Your task to perform on an android device: Show me productivity apps on the Play Store Image 0: 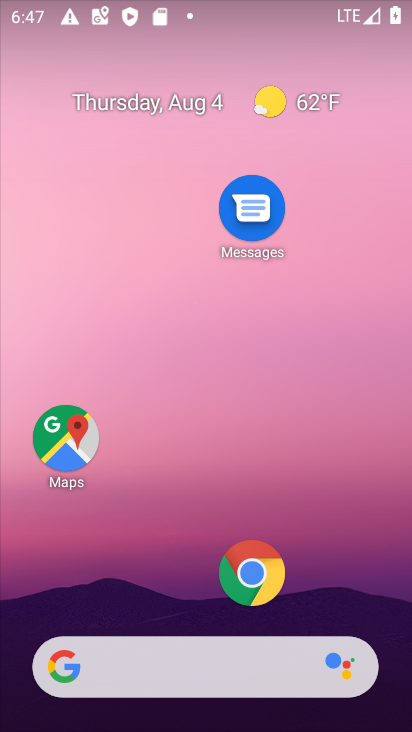
Step 0: press home button
Your task to perform on an android device: Show me productivity apps on the Play Store Image 1: 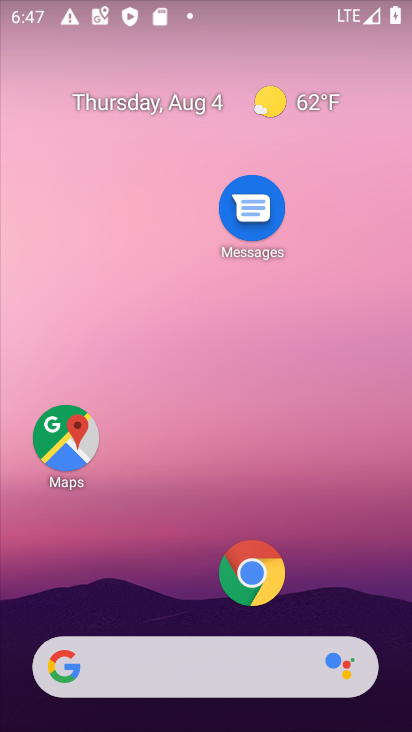
Step 1: drag from (181, 631) to (217, 163)
Your task to perform on an android device: Show me productivity apps on the Play Store Image 2: 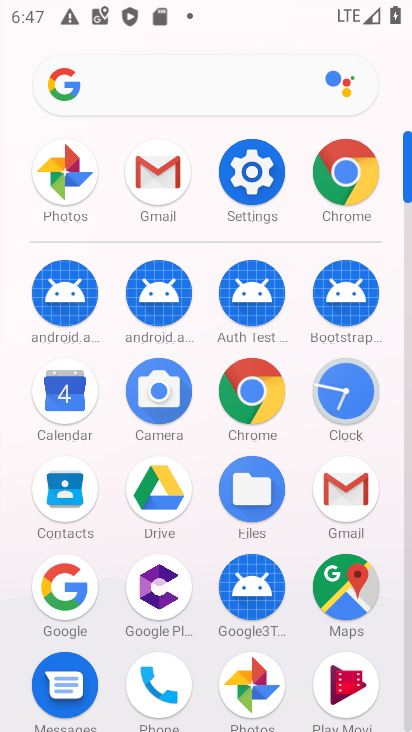
Step 2: drag from (297, 660) to (300, 197)
Your task to perform on an android device: Show me productivity apps on the Play Store Image 3: 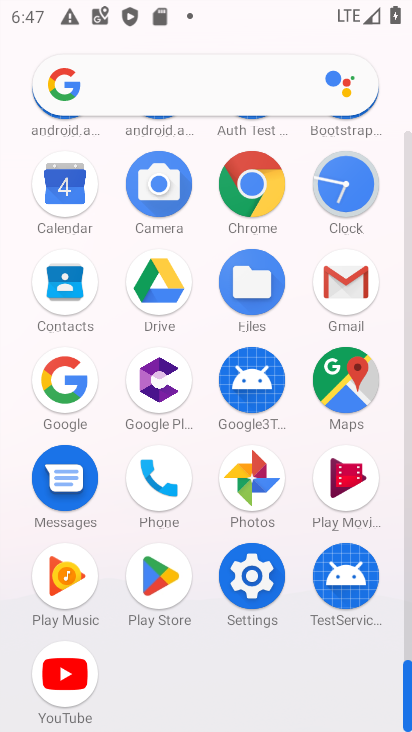
Step 3: click (151, 556)
Your task to perform on an android device: Show me productivity apps on the Play Store Image 4: 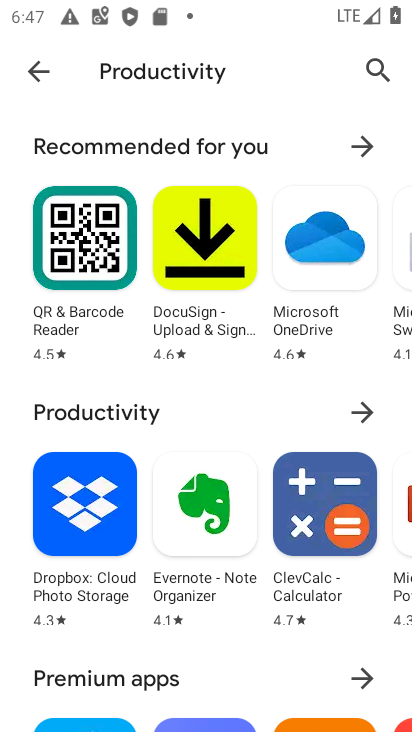
Step 4: click (31, 75)
Your task to perform on an android device: Show me productivity apps on the Play Store Image 5: 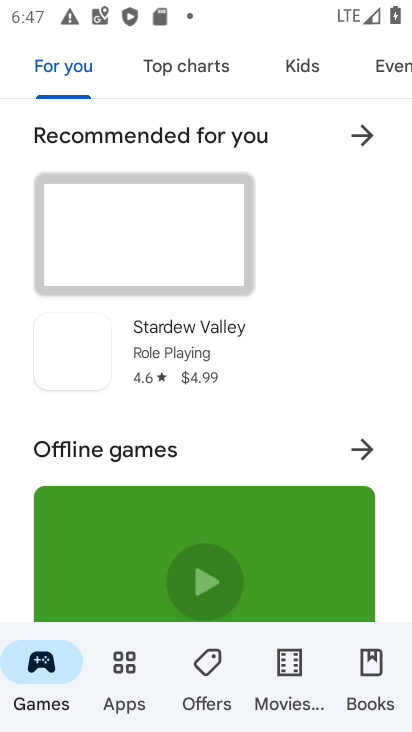
Step 5: click (127, 683)
Your task to perform on an android device: Show me productivity apps on the Play Store Image 6: 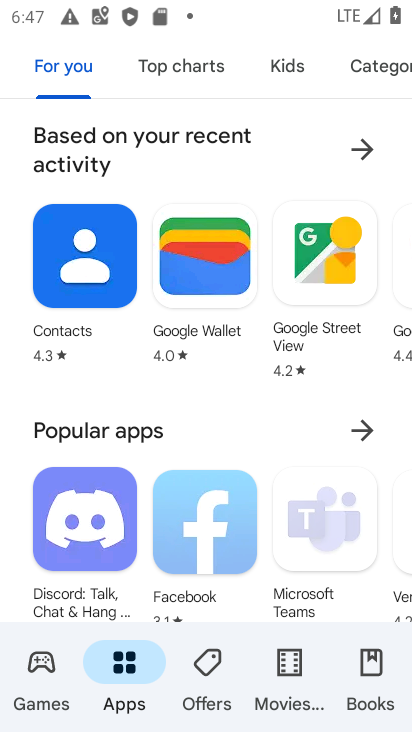
Step 6: drag from (390, 61) to (274, 44)
Your task to perform on an android device: Show me productivity apps on the Play Store Image 7: 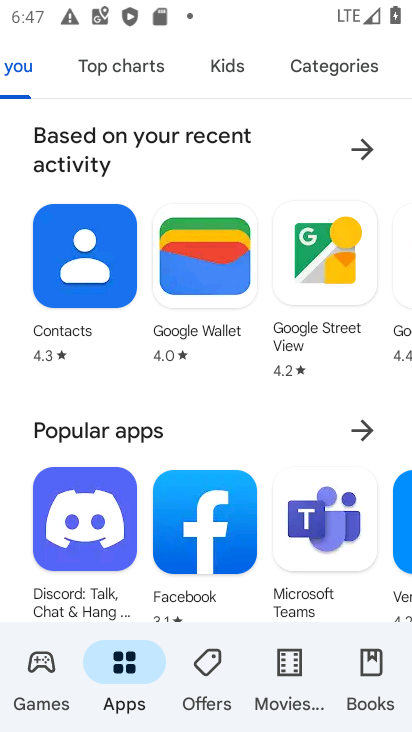
Step 7: click (339, 70)
Your task to perform on an android device: Show me productivity apps on the Play Store Image 8: 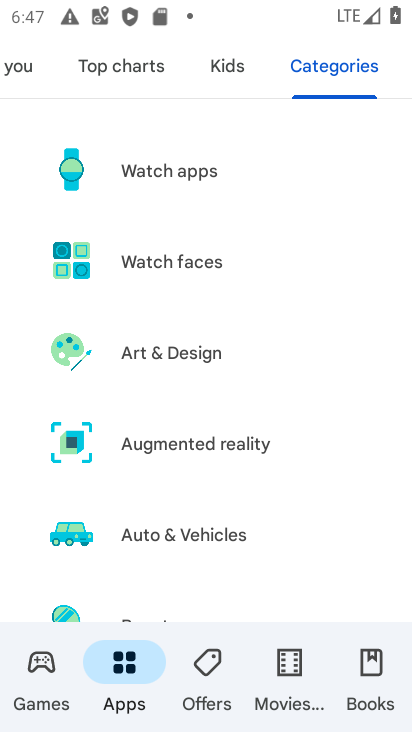
Step 8: drag from (354, 550) to (378, 72)
Your task to perform on an android device: Show me productivity apps on the Play Store Image 9: 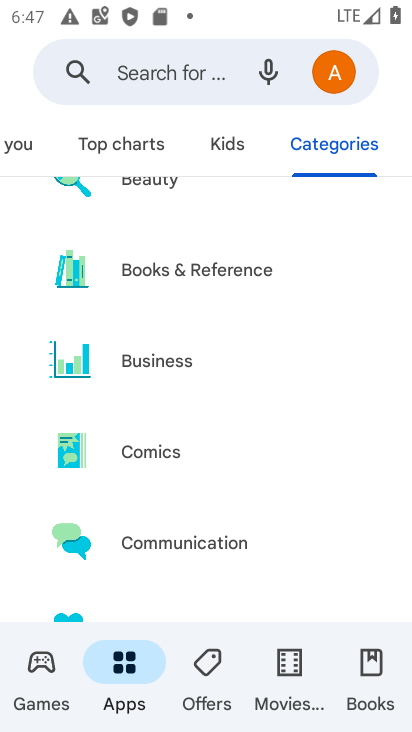
Step 9: drag from (249, 522) to (323, 176)
Your task to perform on an android device: Show me productivity apps on the Play Store Image 10: 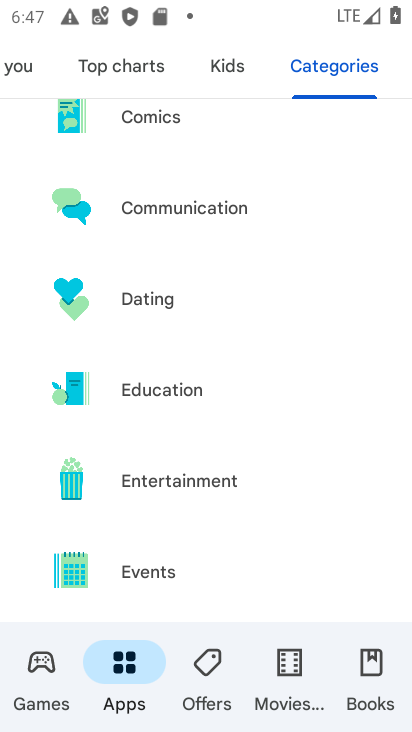
Step 10: drag from (273, 544) to (334, 192)
Your task to perform on an android device: Show me productivity apps on the Play Store Image 11: 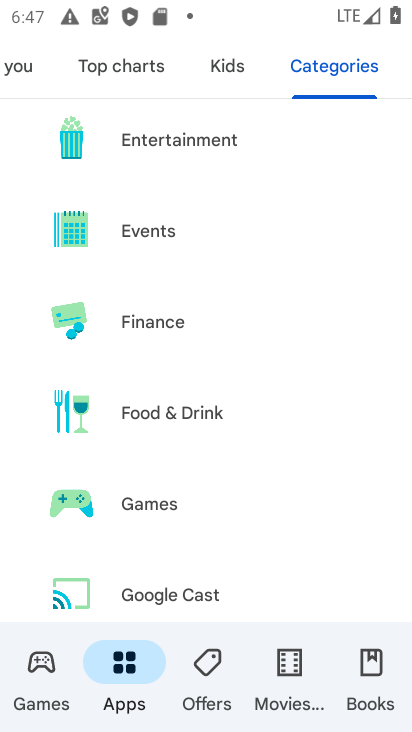
Step 11: drag from (279, 523) to (380, 2)
Your task to perform on an android device: Show me productivity apps on the Play Store Image 12: 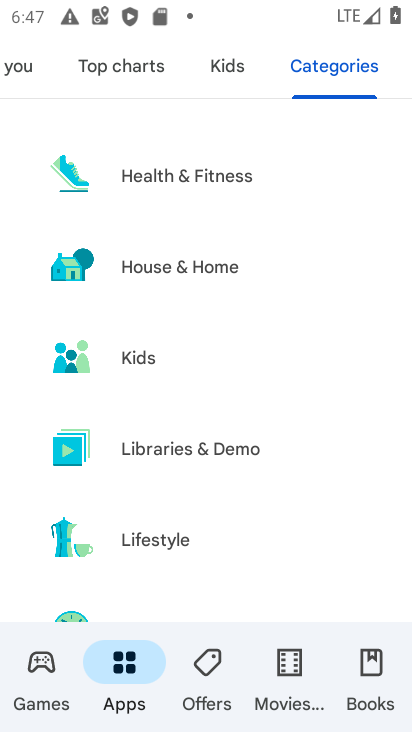
Step 12: drag from (288, 560) to (359, 87)
Your task to perform on an android device: Show me productivity apps on the Play Store Image 13: 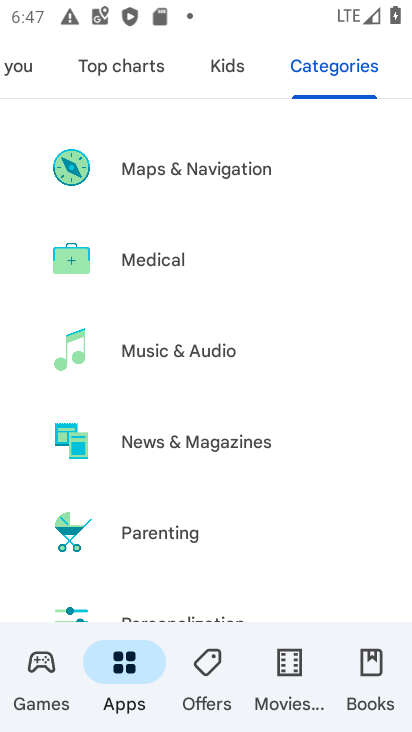
Step 13: drag from (220, 490) to (346, 28)
Your task to perform on an android device: Show me productivity apps on the Play Store Image 14: 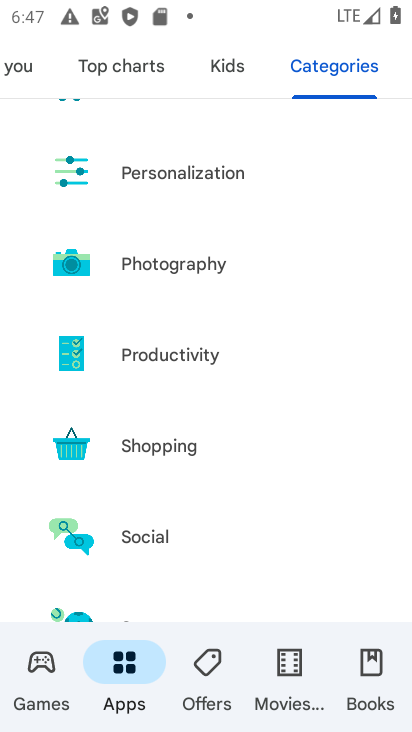
Step 14: click (169, 362)
Your task to perform on an android device: Show me productivity apps on the Play Store Image 15: 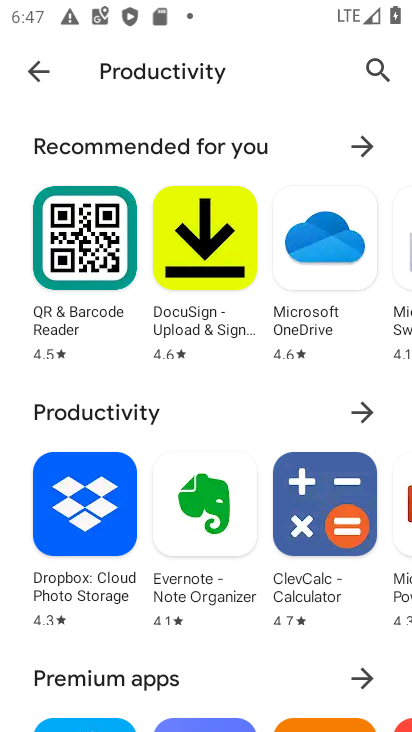
Step 15: task complete